Your task to perform on an android device: turn on showing notifications on the lock screen Image 0: 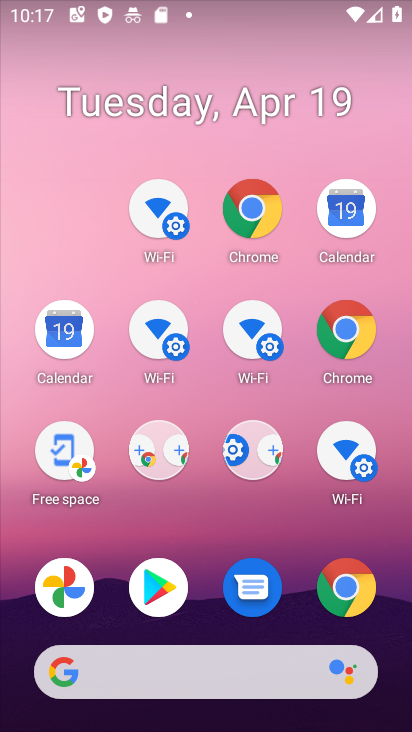
Step 0: click (282, 166)
Your task to perform on an android device: turn on showing notifications on the lock screen Image 1: 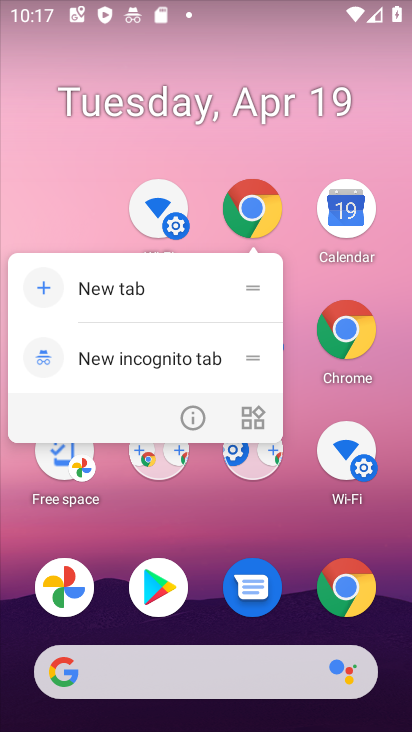
Step 1: drag from (326, 574) to (208, 150)
Your task to perform on an android device: turn on showing notifications on the lock screen Image 2: 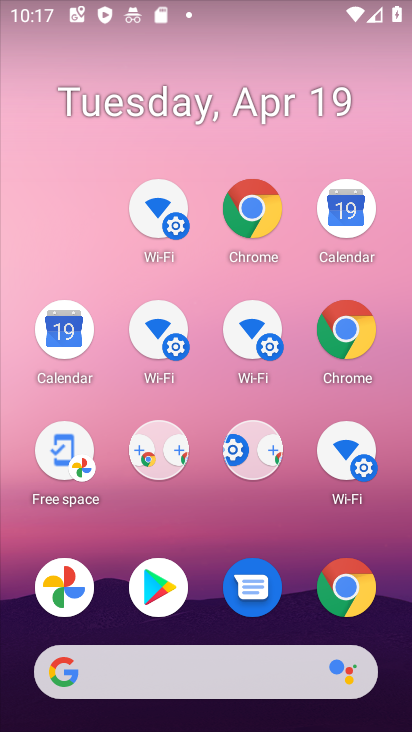
Step 2: drag from (301, 531) to (129, 124)
Your task to perform on an android device: turn on showing notifications on the lock screen Image 3: 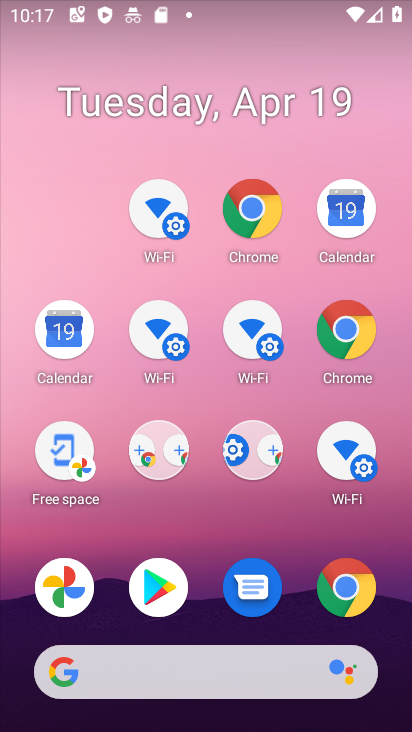
Step 3: drag from (269, 446) to (152, 29)
Your task to perform on an android device: turn on showing notifications on the lock screen Image 4: 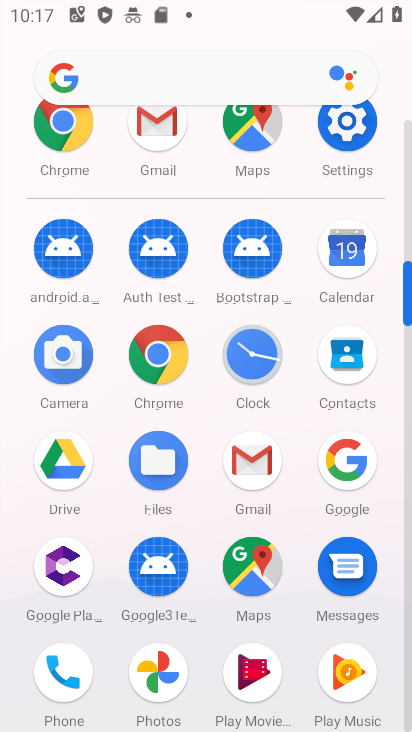
Step 4: click (347, 138)
Your task to perform on an android device: turn on showing notifications on the lock screen Image 5: 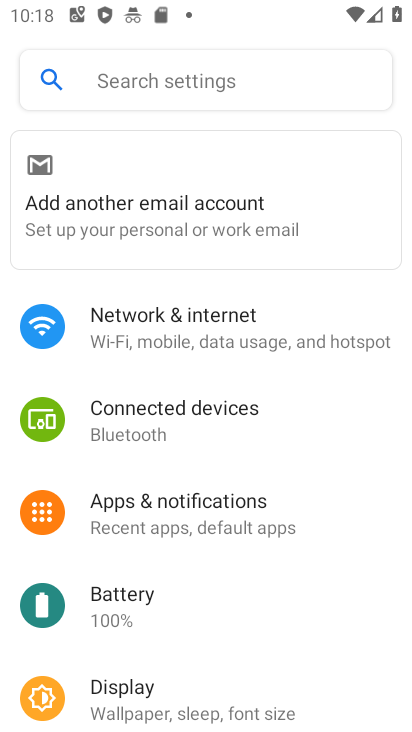
Step 5: drag from (199, 573) to (119, 150)
Your task to perform on an android device: turn on showing notifications on the lock screen Image 6: 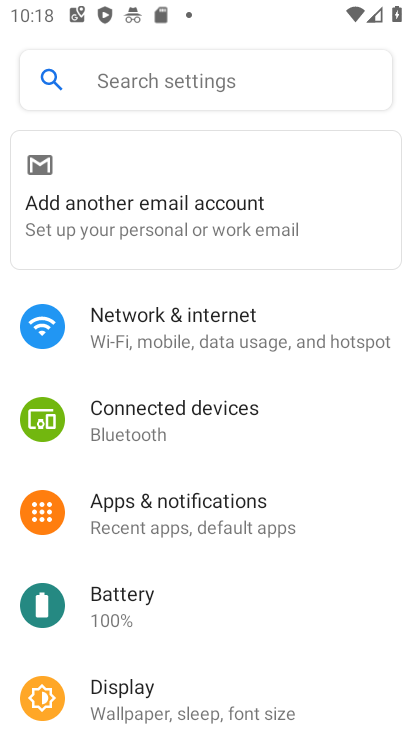
Step 6: drag from (238, 552) to (193, 154)
Your task to perform on an android device: turn on showing notifications on the lock screen Image 7: 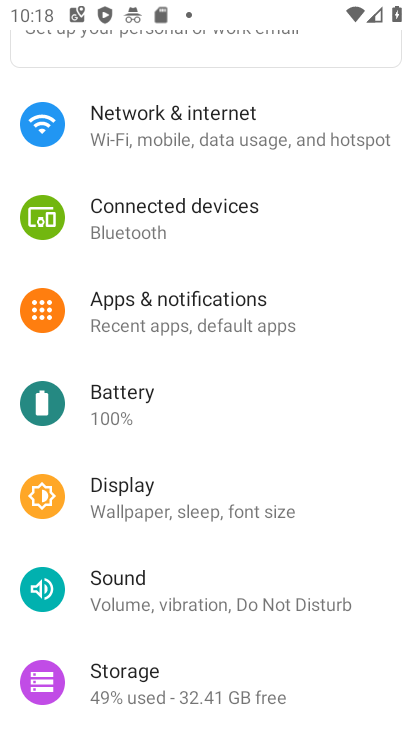
Step 7: click (175, 322)
Your task to perform on an android device: turn on showing notifications on the lock screen Image 8: 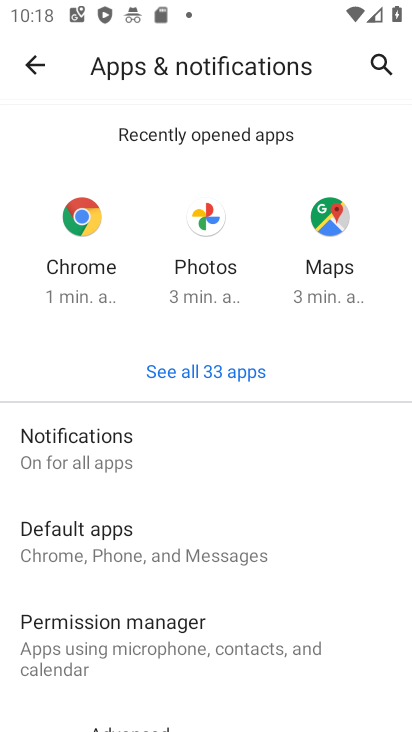
Step 8: click (86, 447)
Your task to perform on an android device: turn on showing notifications on the lock screen Image 9: 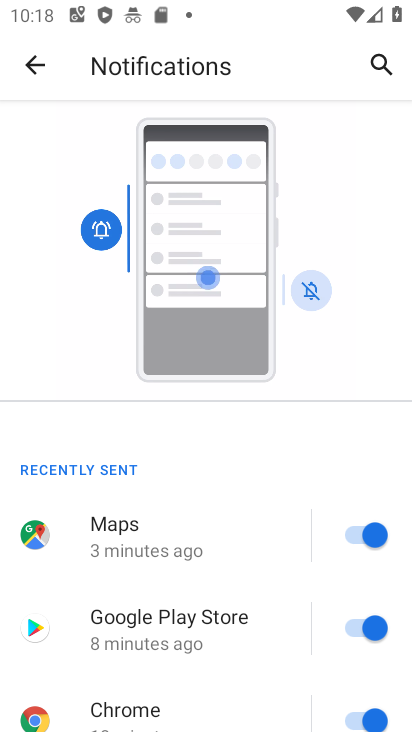
Step 9: drag from (104, 538) to (123, 382)
Your task to perform on an android device: turn on showing notifications on the lock screen Image 10: 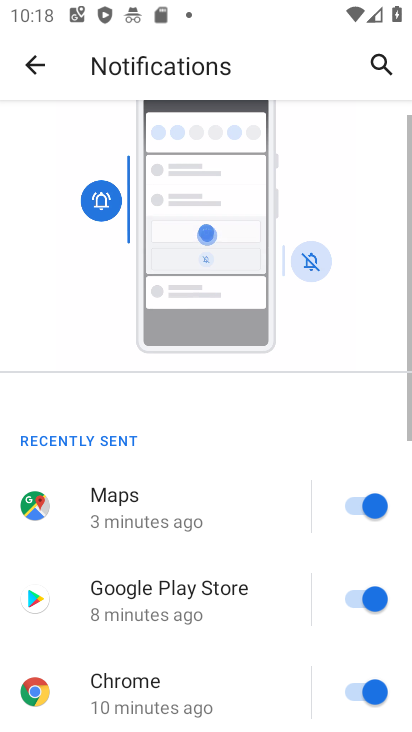
Step 10: drag from (171, 593) to (153, 257)
Your task to perform on an android device: turn on showing notifications on the lock screen Image 11: 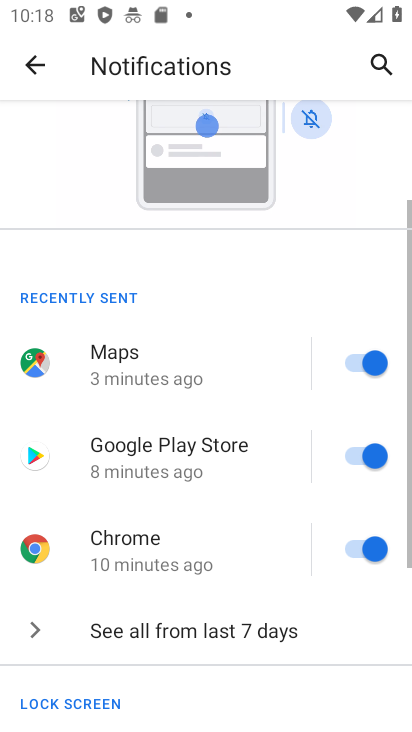
Step 11: drag from (231, 540) to (153, 294)
Your task to perform on an android device: turn on showing notifications on the lock screen Image 12: 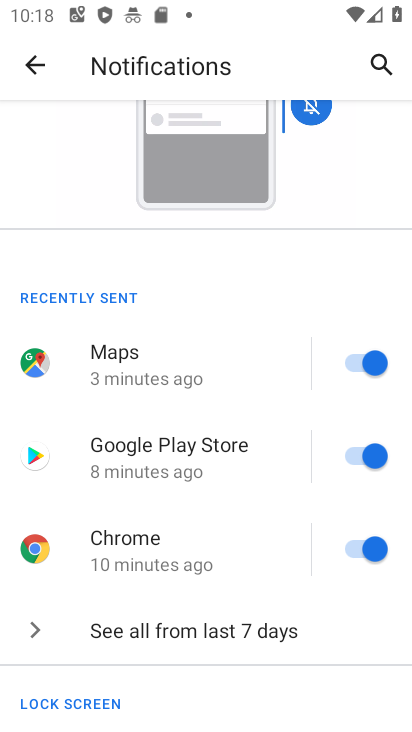
Step 12: drag from (237, 553) to (238, 378)
Your task to perform on an android device: turn on showing notifications on the lock screen Image 13: 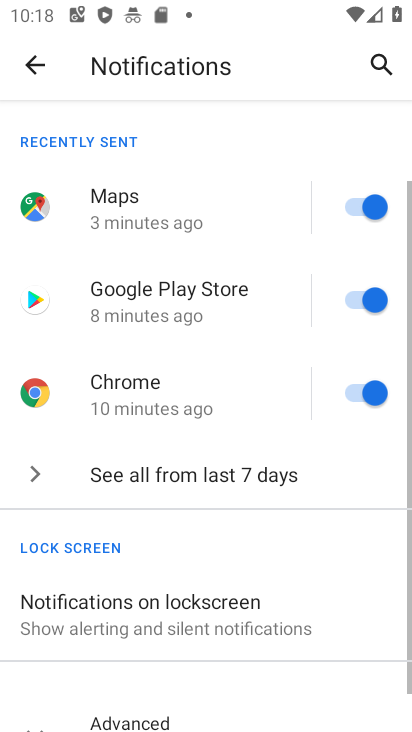
Step 13: drag from (191, 532) to (169, 275)
Your task to perform on an android device: turn on showing notifications on the lock screen Image 14: 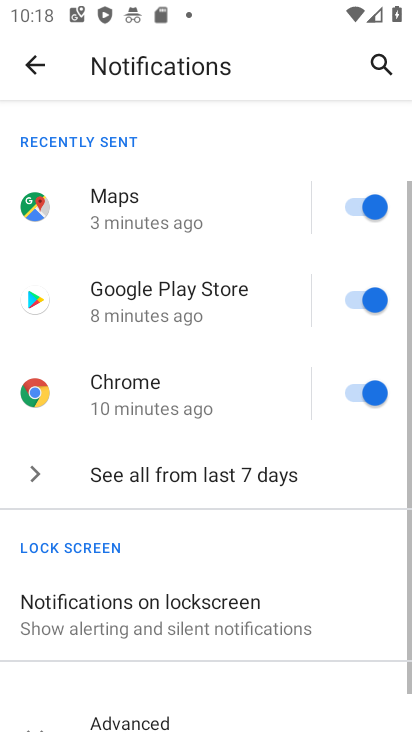
Step 14: drag from (204, 630) to (175, 318)
Your task to perform on an android device: turn on showing notifications on the lock screen Image 15: 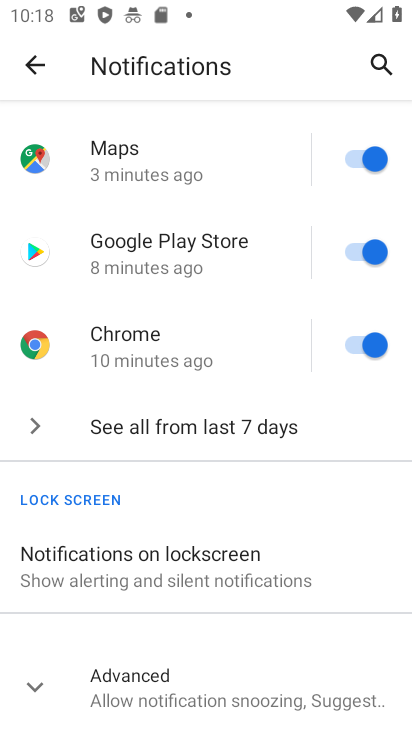
Step 15: click (120, 556)
Your task to perform on an android device: turn on showing notifications on the lock screen Image 16: 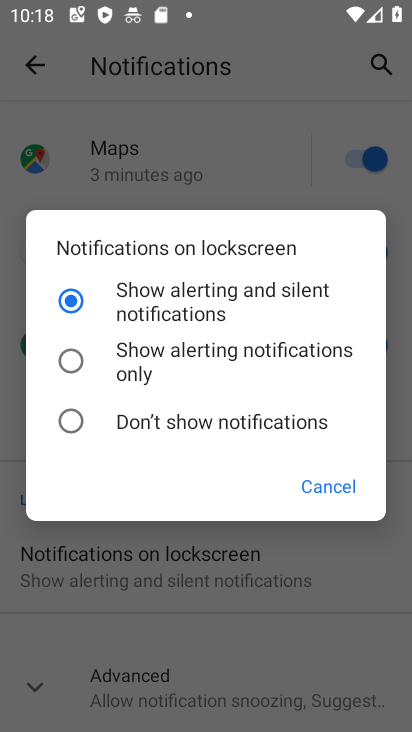
Step 16: click (316, 478)
Your task to perform on an android device: turn on showing notifications on the lock screen Image 17: 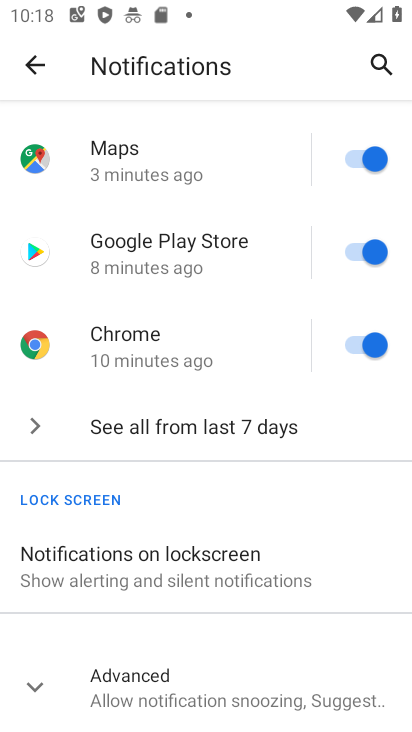
Step 17: click (158, 556)
Your task to perform on an android device: turn on showing notifications on the lock screen Image 18: 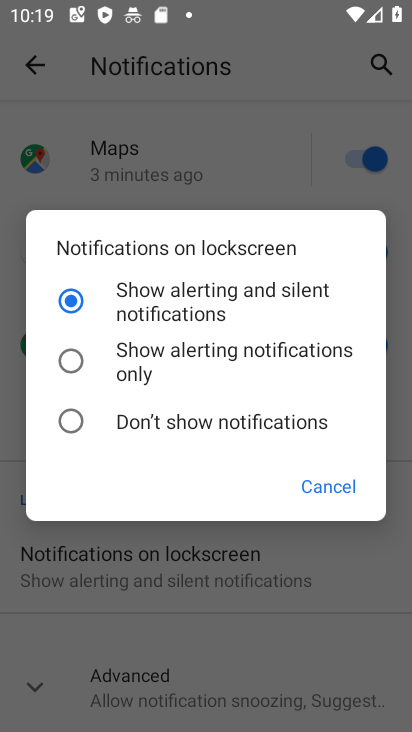
Step 18: click (335, 481)
Your task to perform on an android device: turn on showing notifications on the lock screen Image 19: 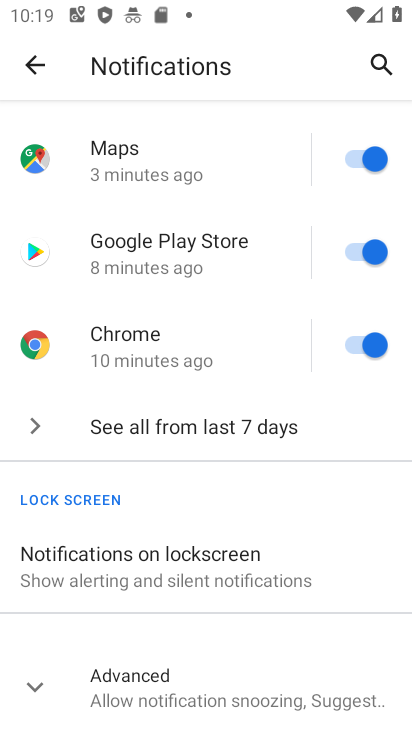
Step 19: task complete